Your task to perform on an android device: Is it going to rain this weekend? Image 0: 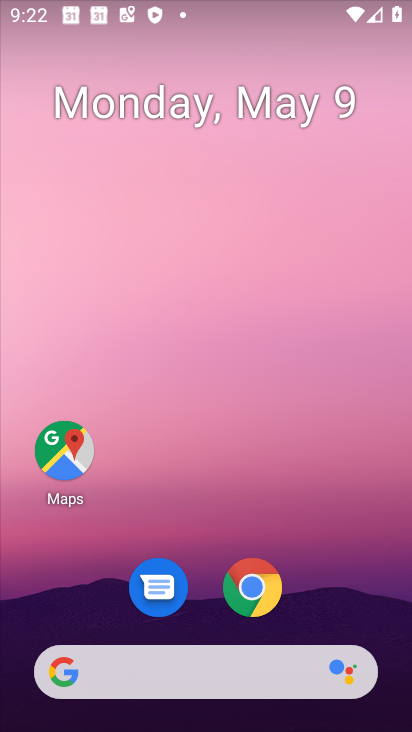
Step 0: click (233, 654)
Your task to perform on an android device: Is it going to rain this weekend? Image 1: 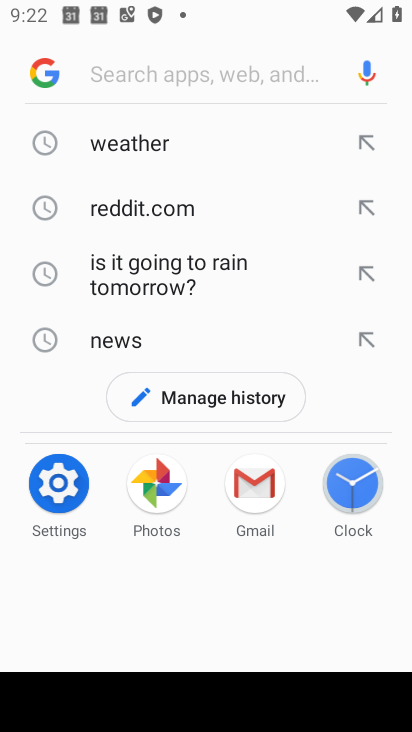
Step 1: click (168, 161)
Your task to perform on an android device: Is it going to rain this weekend? Image 2: 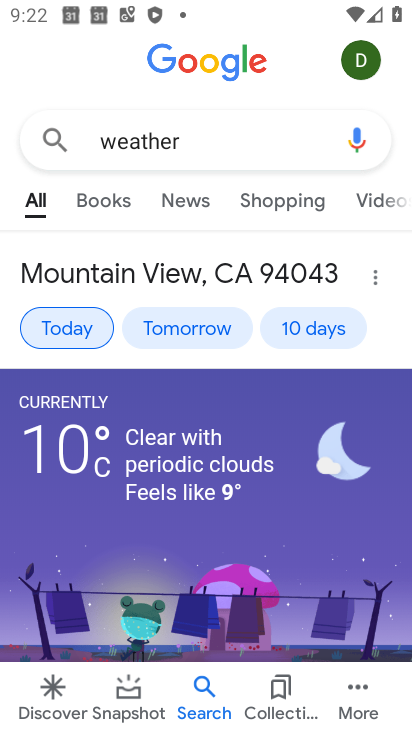
Step 2: task complete